Your task to perform on an android device: Set the phone to "Do not disturb". Image 0: 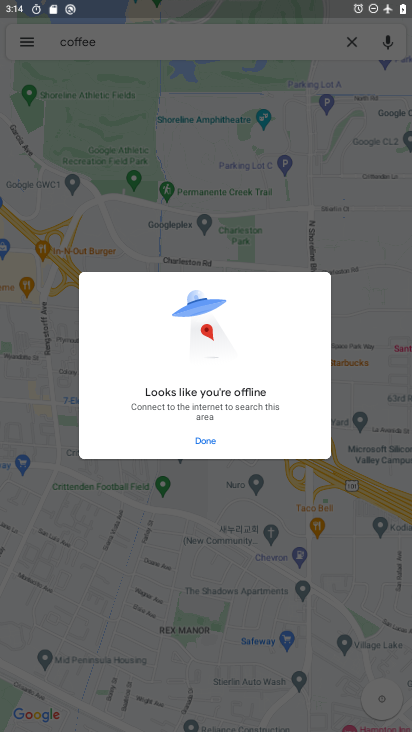
Step 0: press home button
Your task to perform on an android device: Set the phone to "Do not disturb". Image 1: 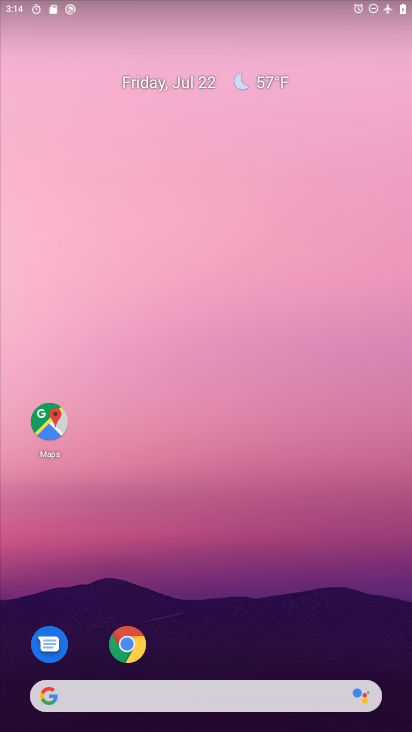
Step 1: drag from (212, 619) to (217, 167)
Your task to perform on an android device: Set the phone to "Do not disturb". Image 2: 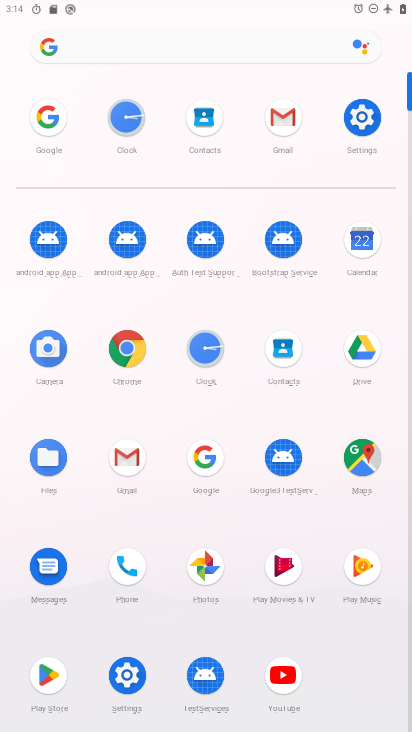
Step 2: click (372, 125)
Your task to perform on an android device: Set the phone to "Do not disturb". Image 3: 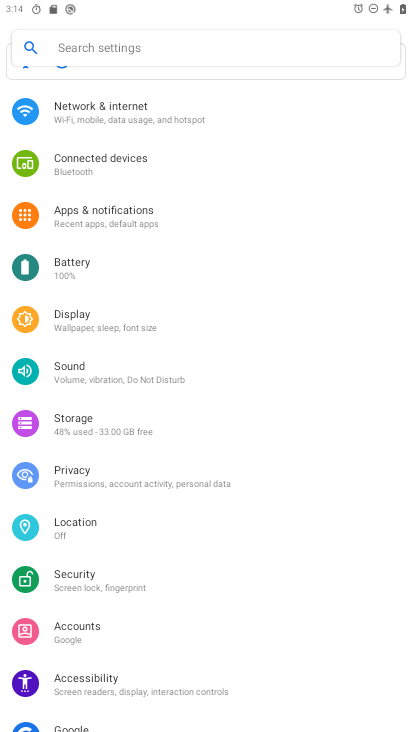
Step 3: click (106, 372)
Your task to perform on an android device: Set the phone to "Do not disturb". Image 4: 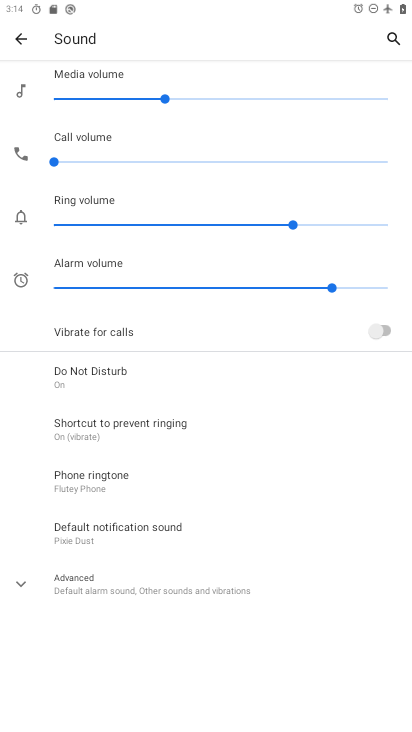
Step 4: click (102, 384)
Your task to perform on an android device: Set the phone to "Do not disturb". Image 5: 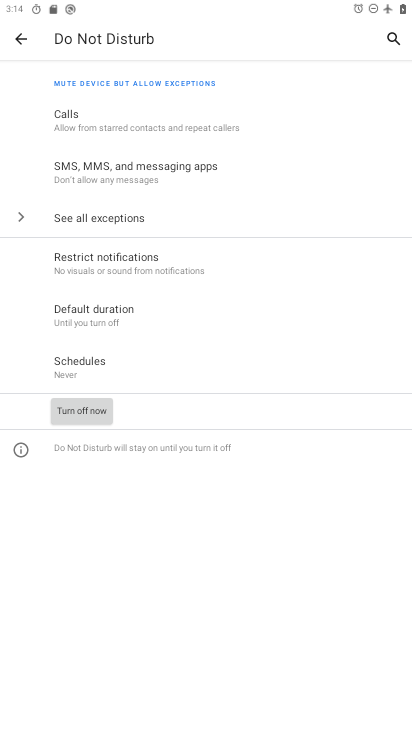
Step 5: task complete